Your task to perform on an android device: Check the news Image 0: 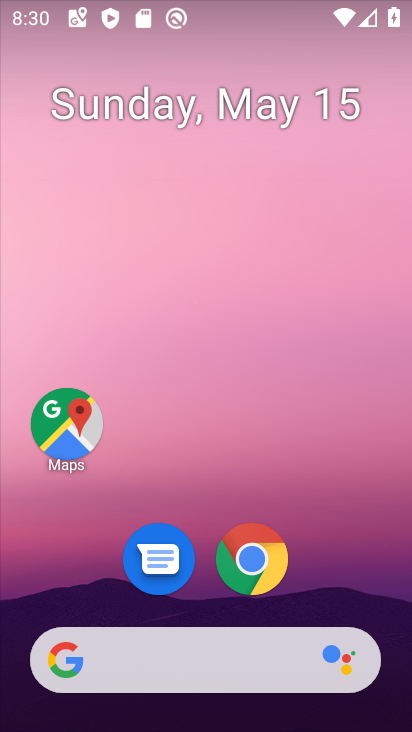
Step 0: click (265, 659)
Your task to perform on an android device: Check the news Image 1: 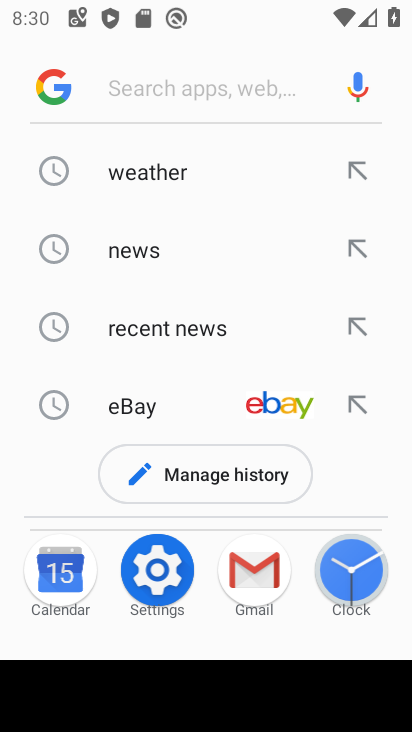
Step 1: click (208, 248)
Your task to perform on an android device: Check the news Image 2: 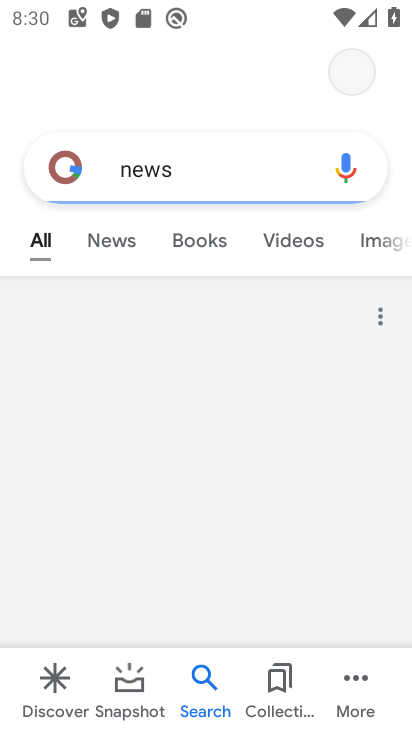
Step 2: task complete